Your task to perform on an android device: turn off smart reply in the gmail app Image 0: 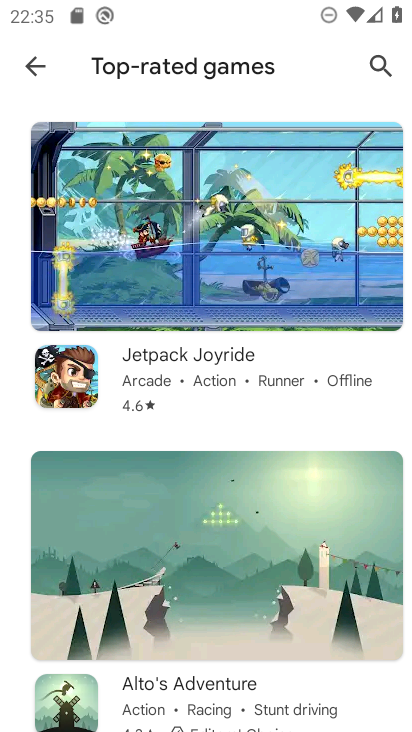
Step 0: press home button
Your task to perform on an android device: turn off smart reply in the gmail app Image 1: 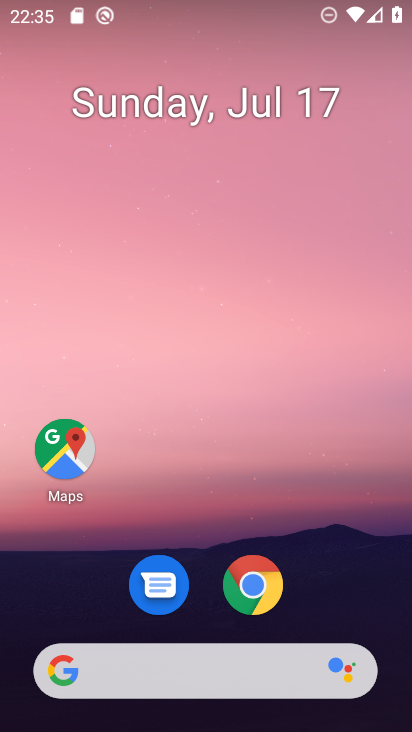
Step 1: drag from (216, 673) to (307, 86)
Your task to perform on an android device: turn off smart reply in the gmail app Image 2: 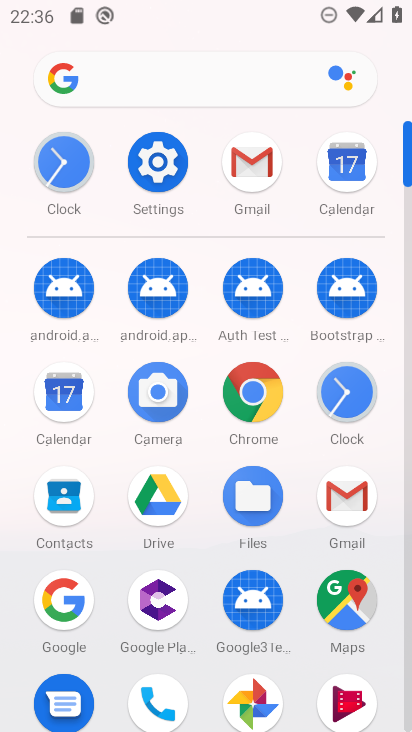
Step 2: click (251, 167)
Your task to perform on an android device: turn off smart reply in the gmail app Image 3: 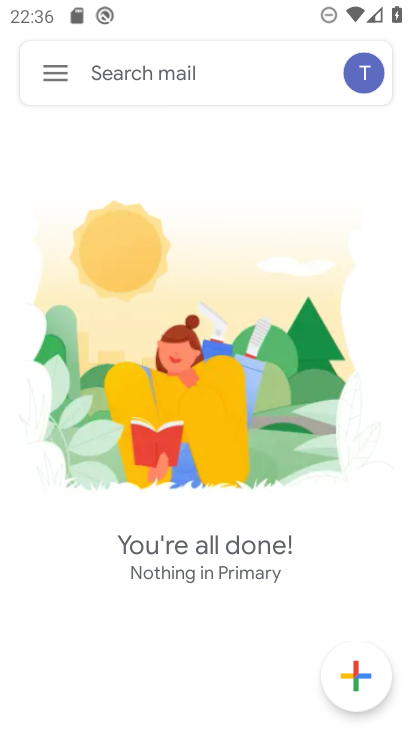
Step 3: click (54, 73)
Your task to perform on an android device: turn off smart reply in the gmail app Image 4: 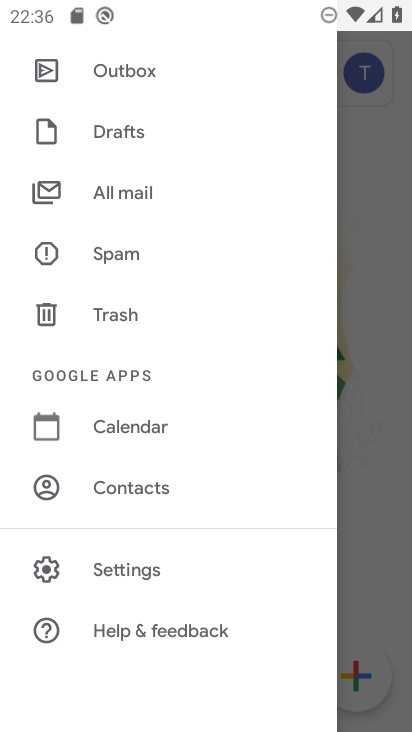
Step 4: click (140, 568)
Your task to perform on an android device: turn off smart reply in the gmail app Image 5: 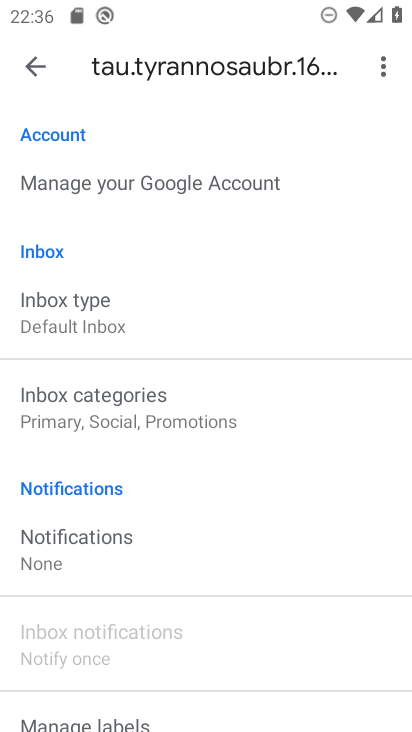
Step 5: task complete